Your task to perform on an android device: Open Wikipedia Image 0: 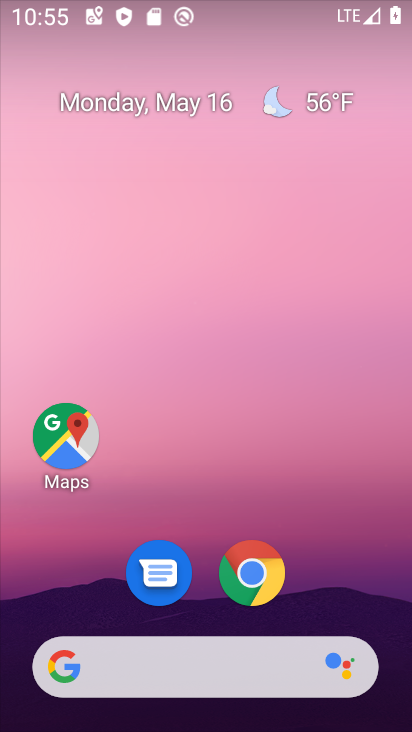
Step 0: click (168, 648)
Your task to perform on an android device: Open Wikipedia Image 1: 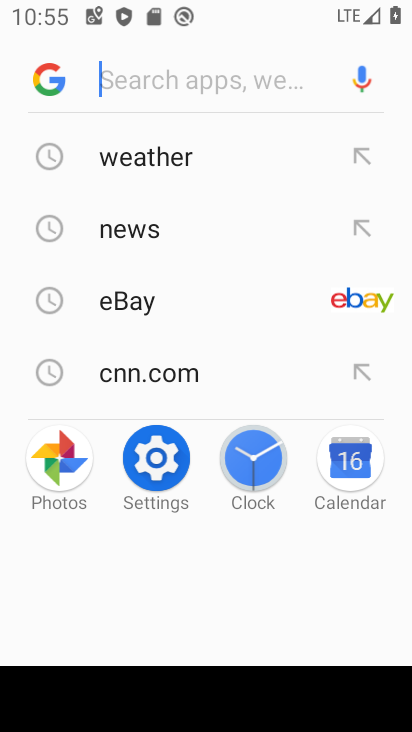
Step 1: type "wikipedia"
Your task to perform on an android device: Open Wikipedia Image 2: 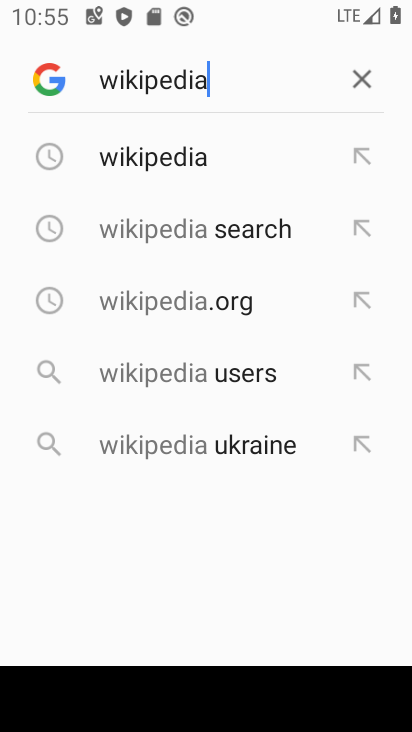
Step 2: click (181, 164)
Your task to perform on an android device: Open Wikipedia Image 3: 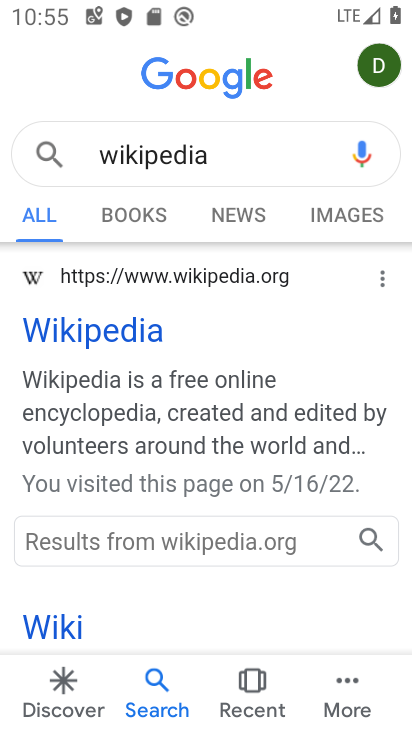
Step 3: click (132, 277)
Your task to perform on an android device: Open Wikipedia Image 4: 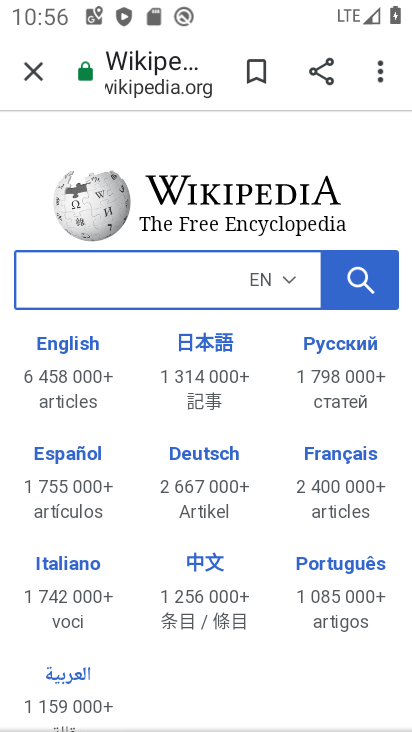
Step 4: task complete